Your task to perform on an android device: What's on my calendar today? Image 0: 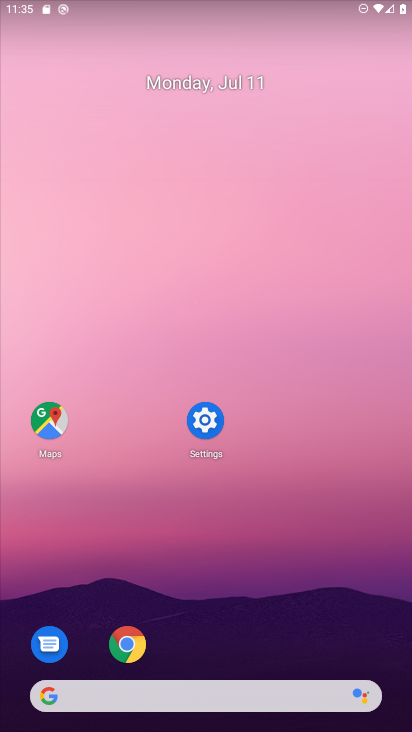
Step 0: drag from (404, 712) to (313, 159)
Your task to perform on an android device: What's on my calendar today? Image 1: 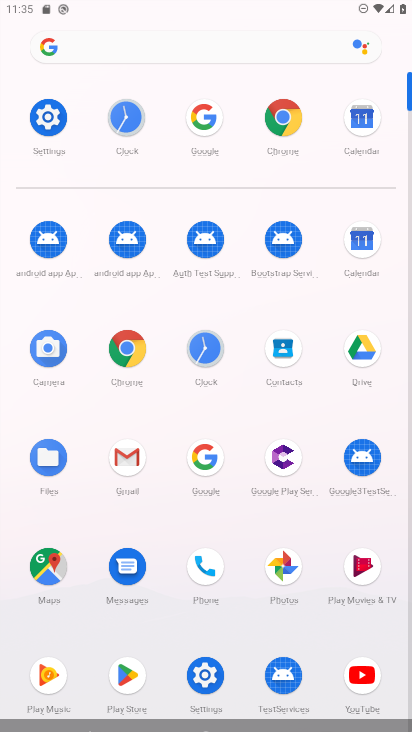
Step 1: click (349, 229)
Your task to perform on an android device: What's on my calendar today? Image 2: 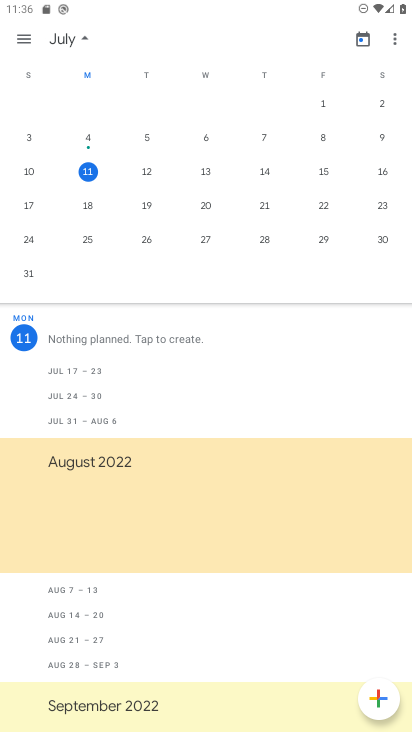
Step 2: click (82, 161)
Your task to perform on an android device: What's on my calendar today? Image 3: 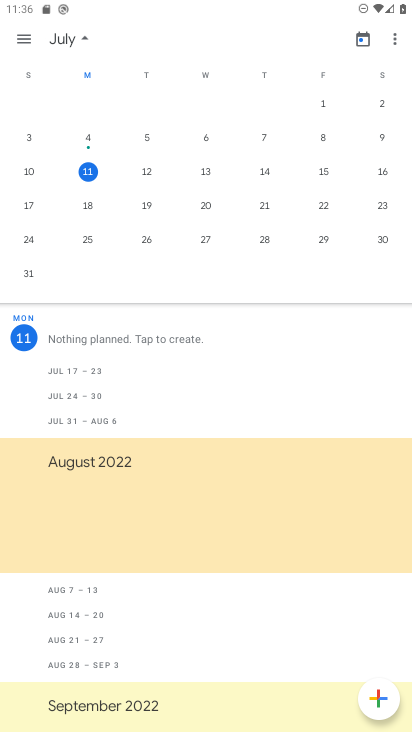
Step 3: task complete